Your task to perform on an android device: empty trash in the gmail app Image 0: 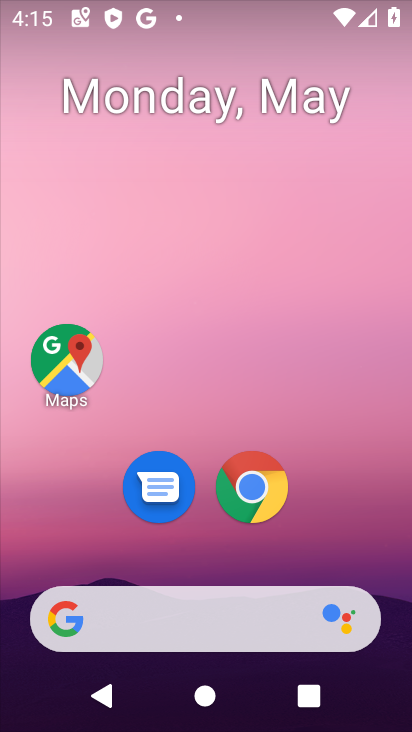
Step 0: drag from (361, 521) to (305, 9)
Your task to perform on an android device: empty trash in the gmail app Image 1: 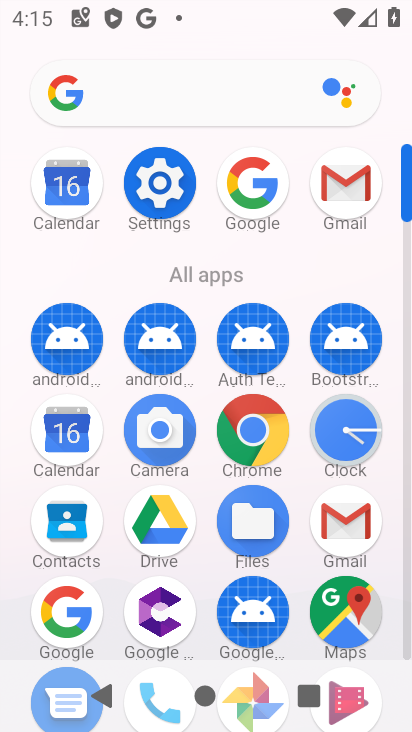
Step 1: click (346, 194)
Your task to perform on an android device: empty trash in the gmail app Image 2: 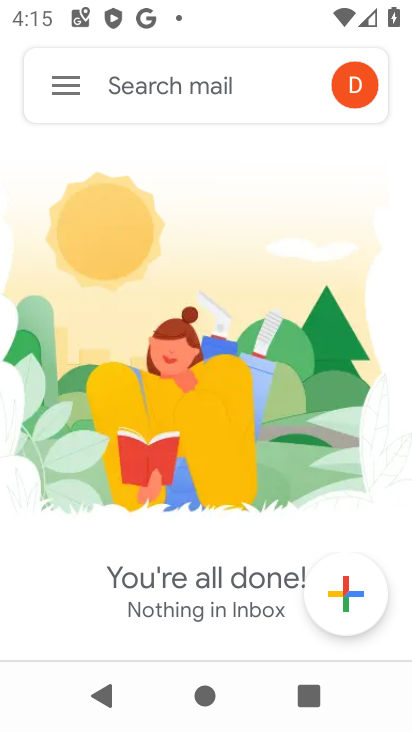
Step 2: click (71, 91)
Your task to perform on an android device: empty trash in the gmail app Image 3: 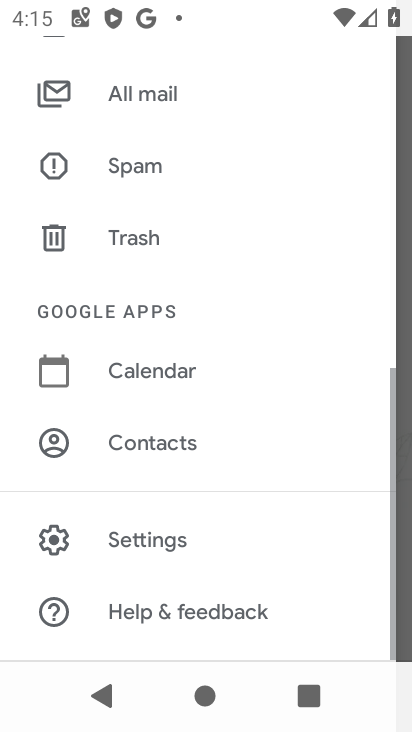
Step 3: click (112, 226)
Your task to perform on an android device: empty trash in the gmail app Image 4: 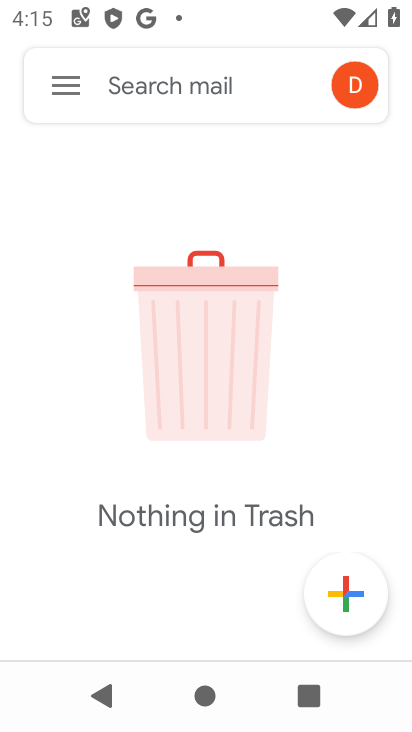
Step 4: task complete